Your task to perform on an android device: Open calendar and show me the fourth week of next month Image 0: 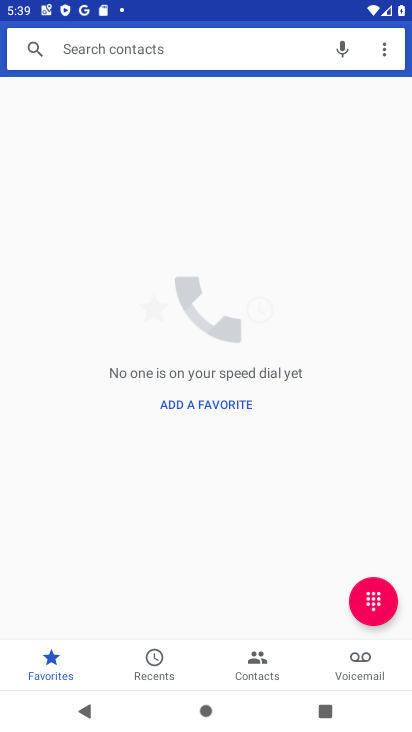
Step 0: press home button
Your task to perform on an android device: Open calendar and show me the fourth week of next month Image 1: 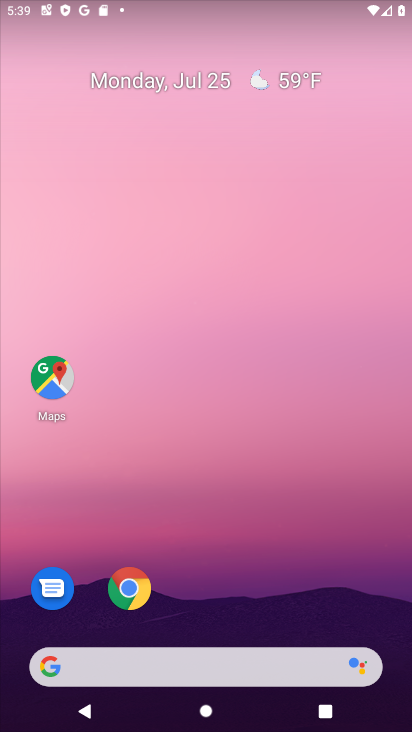
Step 1: drag from (262, 568) to (279, 337)
Your task to perform on an android device: Open calendar and show me the fourth week of next month Image 2: 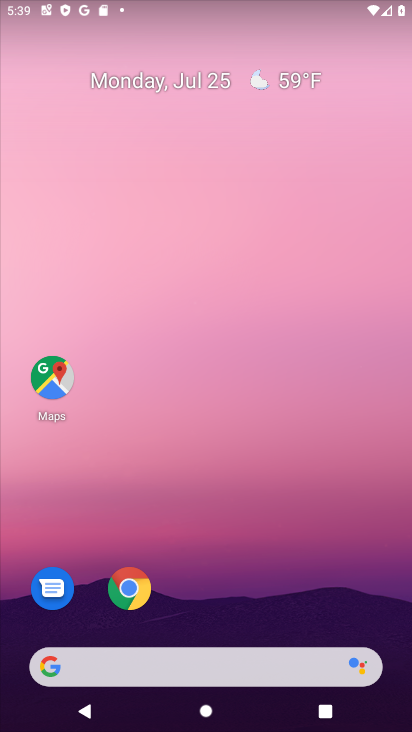
Step 2: drag from (297, 559) to (321, 241)
Your task to perform on an android device: Open calendar and show me the fourth week of next month Image 3: 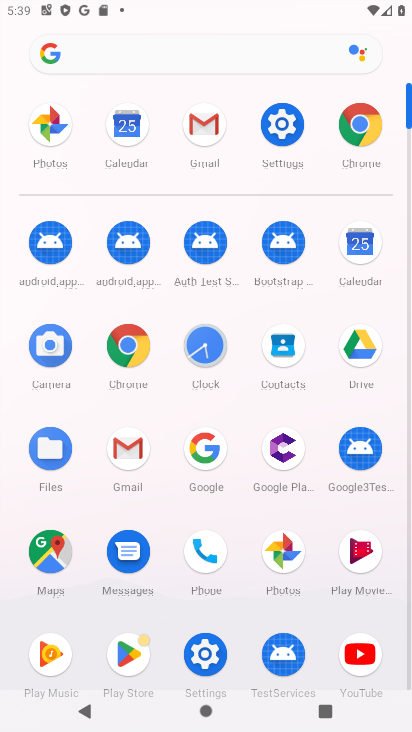
Step 3: click (364, 244)
Your task to perform on an android device: Open calendar and show me the fourth week of next month Image 4: 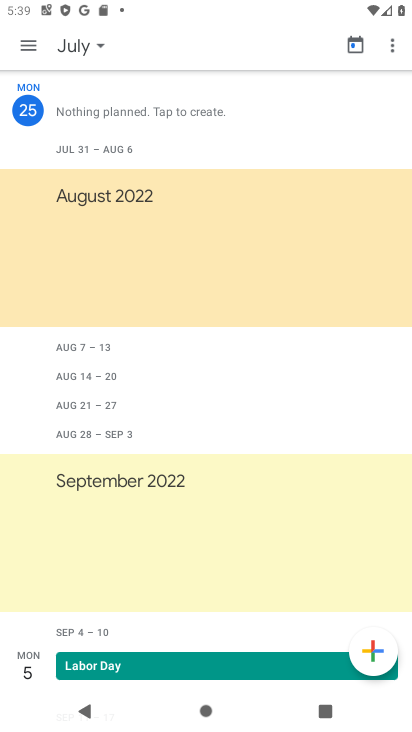
Step 4: task complete